Your task to perform on an android device: Open CNN.com Image 0: 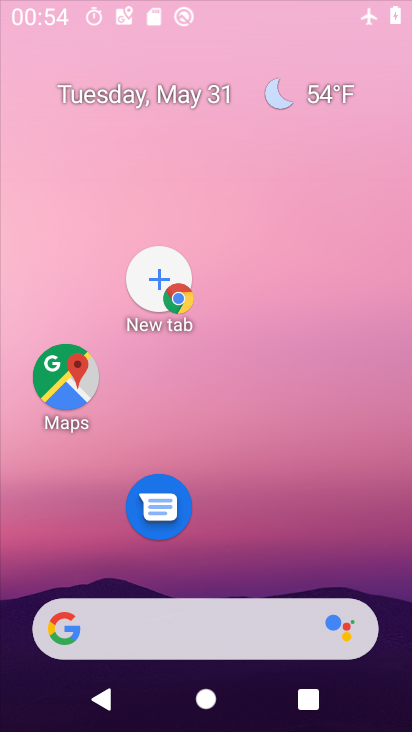
Step 0: drag from (278, 689) to (235, 140)
Your task to perform on an android device: Open CNN.com Image 1: 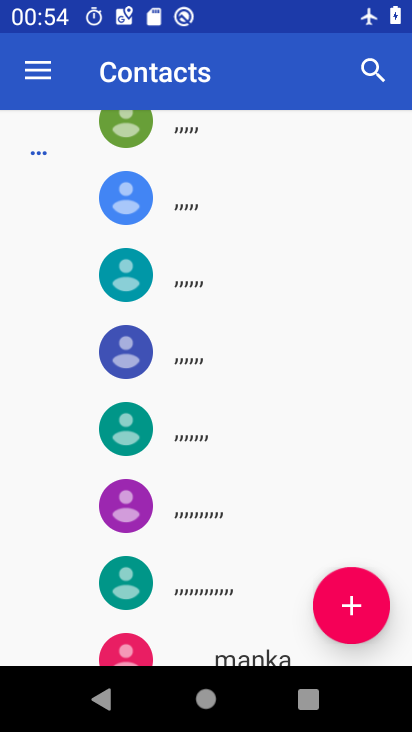
Step 1: press back button
Your task to perform on an android device: Open CNN.com Image 2: 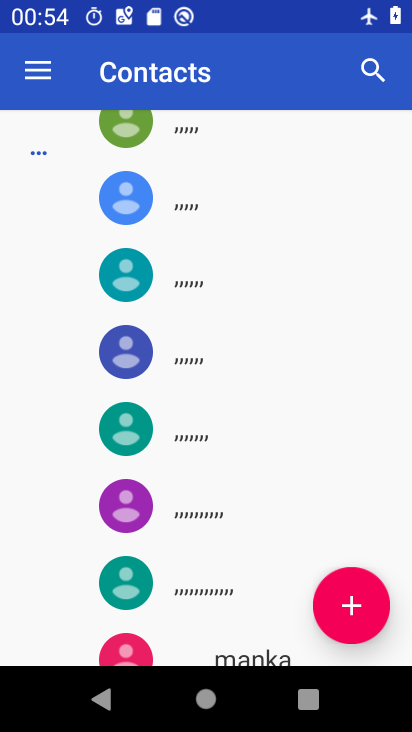
Step 2: press back button
Your task to perform on an android device: Open CNN.com Image 3: 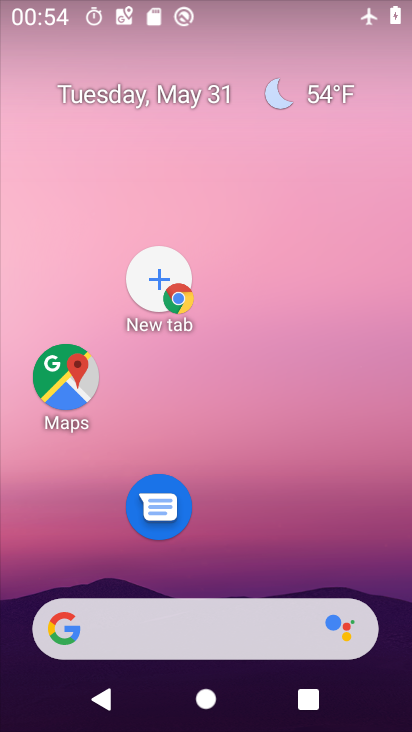
Step 3: drag from (208, 563) to (187, 84)
Your task to perform on an android device: Open CNN.com Image 4: 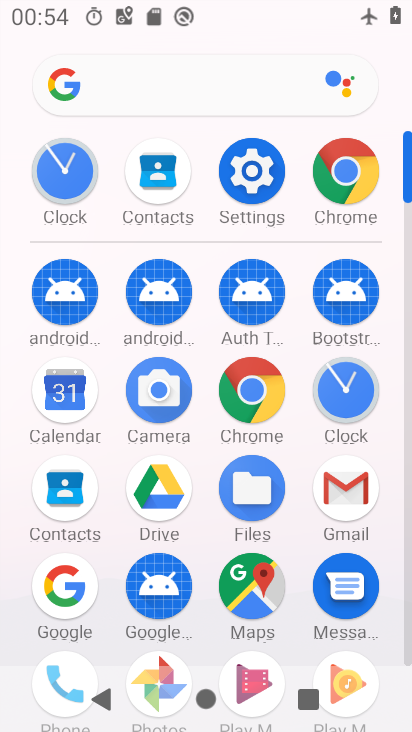
Step 4: click (343, 181)
Your task to perform on an android device: Open CNN.com Image 5: 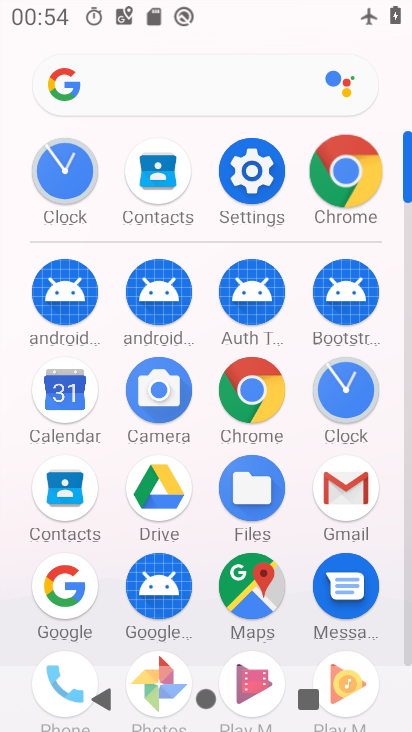
Step 5: click (343, 181)
Your task to perform on an android device: Open CNN.com Image 6: 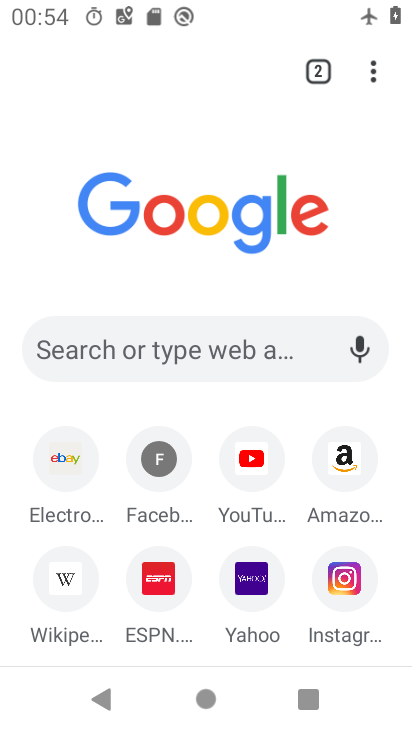
Step 6: click (94, 355)
Your task to perform on an android device: Open CNN.com Image 7: 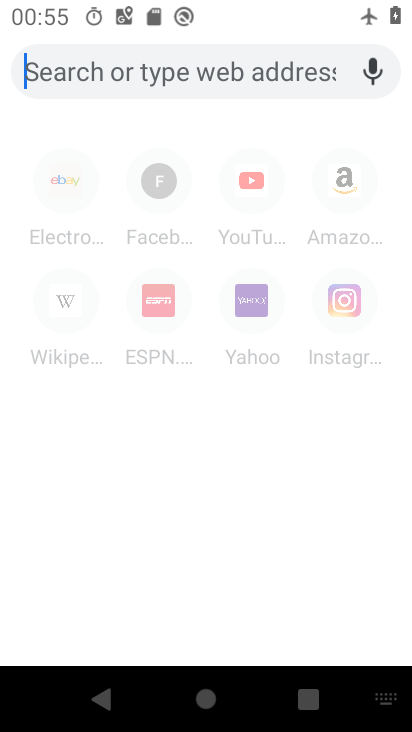
Step 7: type "cnn.c"
Your task to perform on an android device: Open CNN.com Image 8: 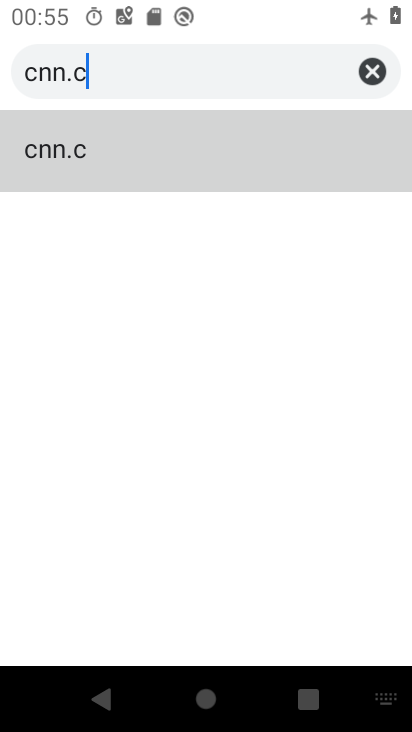
Step 8: type "om"
Your task to perform on an android device: Open CNN.com Image 9: 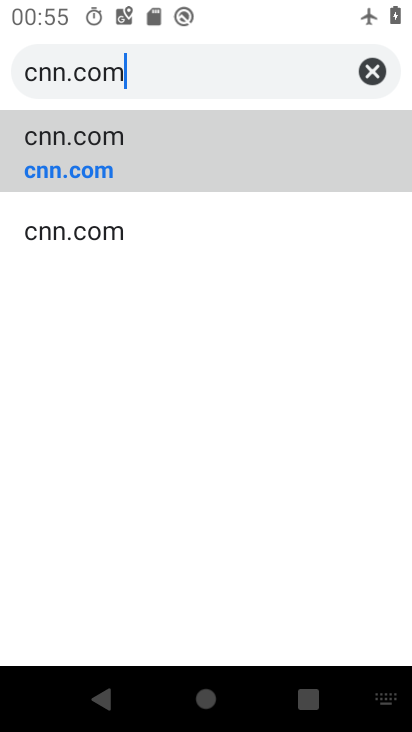
Step 9: click (58, 165)
Your task to perform on an android device: Open CNN.com Image 10: 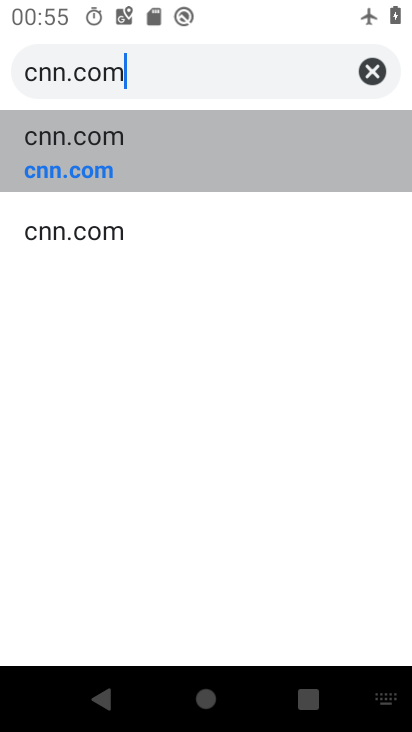
Step 10: click (58, 165)
Your task to perform on an android device: Open CNN.com Image 11: 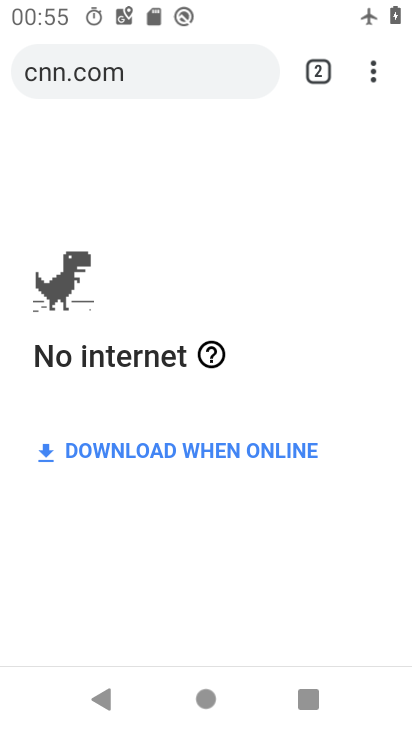
Step 11: task complete